Your task to perform on an android device: Open calendar and show me the first week of next month Image 0: 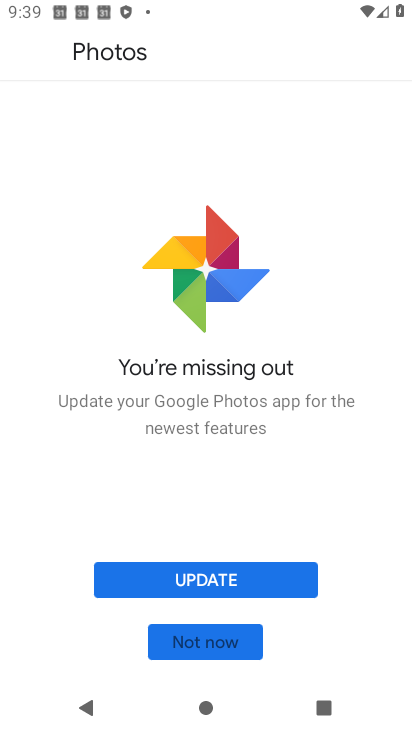
Step 0: press home button
Your task to perform on an android device: Open calendar and show me the first week of next month Image 1: 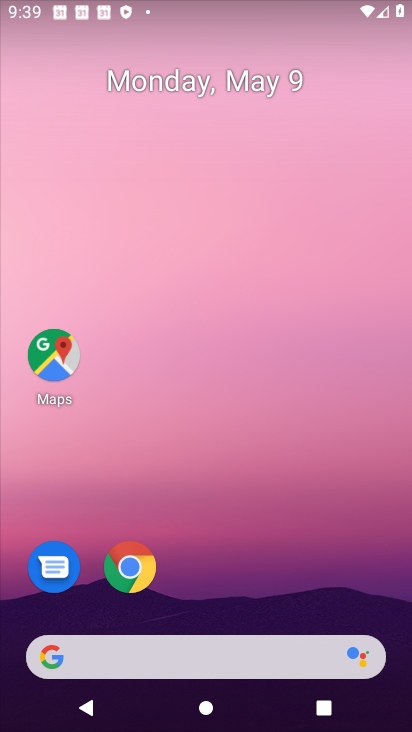
Step 1: drag from (198, 653) to (164, 137)
Your task to perform on an android device: Open calendar and show me the first week of next month Image 2: 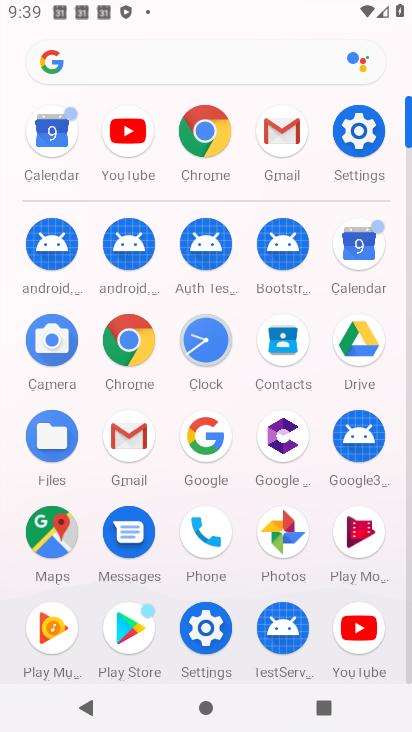
Step 2: click (363, 255)
Your task to perform on an android device: Open calendar and show me the first week of next month Image 3: 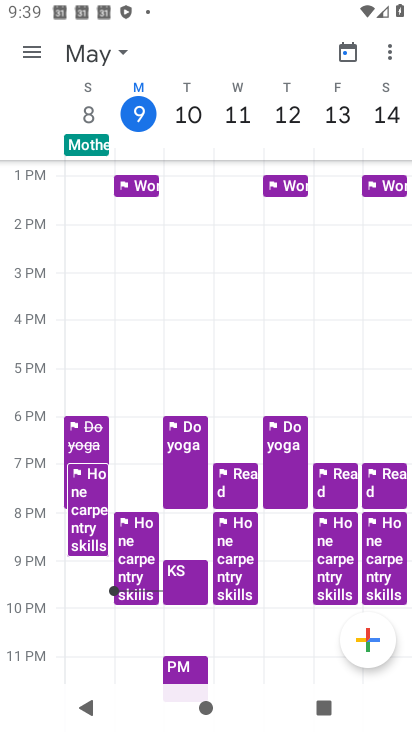
Step 3: click (43, 43)
Your task to perform on an android device: Open calendar and show me the first week of next month Image 4: 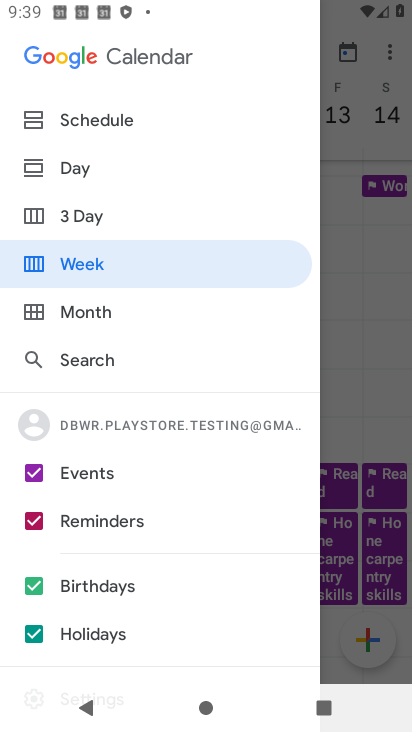
Step 4: click (100, 312)
Your task to perform on an android device: Open calendar and show me the first week of next month Image 5: 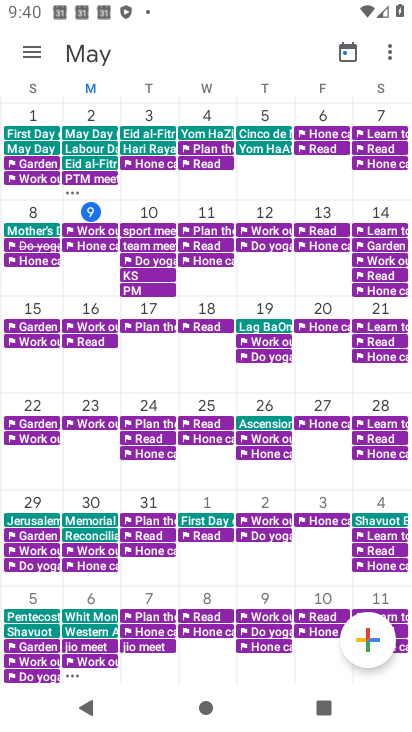
Step 5: task complete